Your task to perform on an android device: turn notification dots on Image 0: 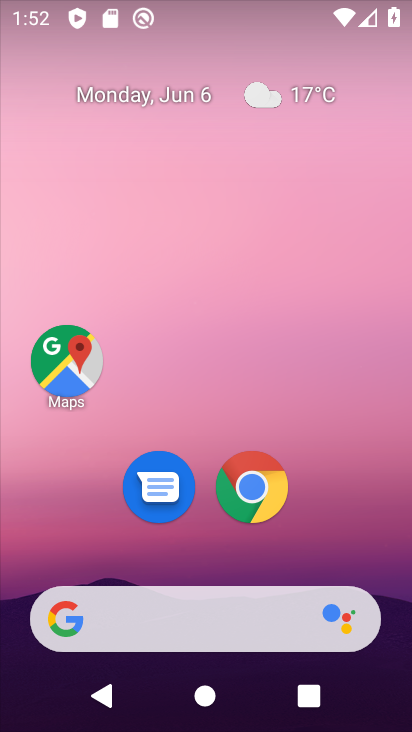
Step 0: drag from (342, 551) to (404, 133)
Your task to perform on an android device: turn notification dots on Image 1: 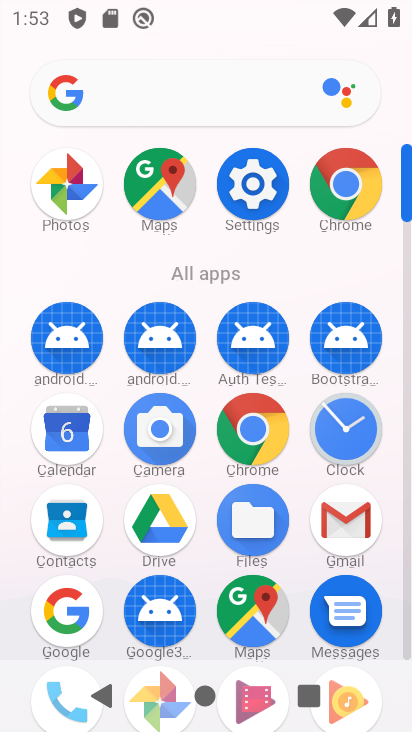
Step 1: click (246, 180)
Your task to perform on an android device: turn notification dots on Image 2: 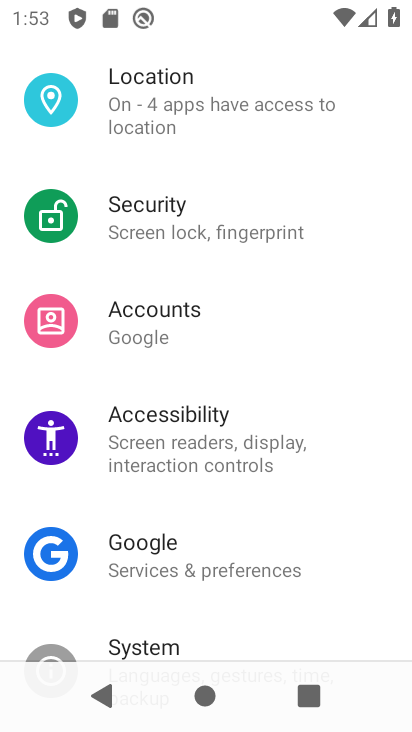
Step 2: drag from (243, 123) to (258, 646)
Your task to perform on an android device: turn notification dots on Image 3: 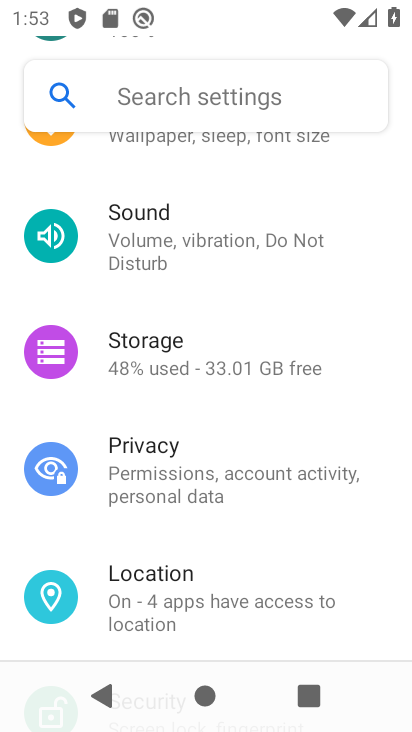
Step 3: drag from (231, 159) to (201, 559)
Your task to perform on an android device: turn notification dots on Image 4: 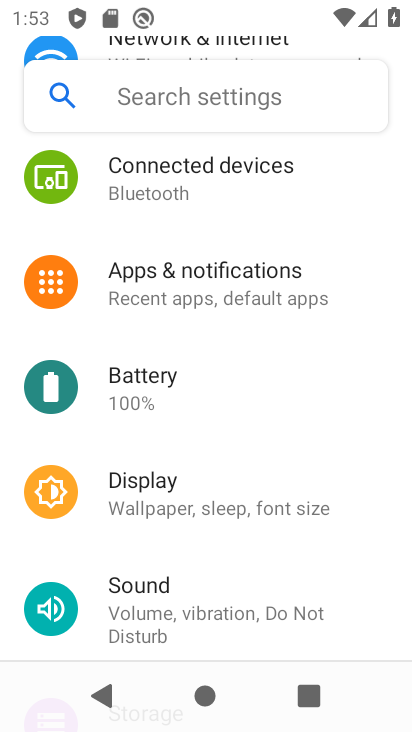
Step 4: click (160, 275)
Your task to perform on an android device: turn notification dots on Image 5: 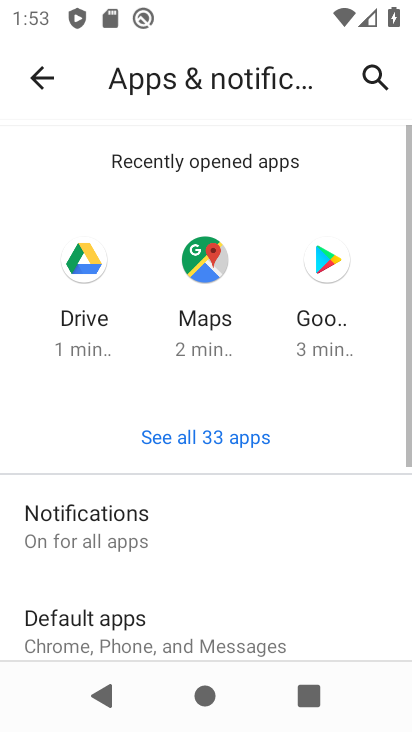
Step 5: click (154, 541)
Your task to perform on an android device: turn notification dots on Image 6: 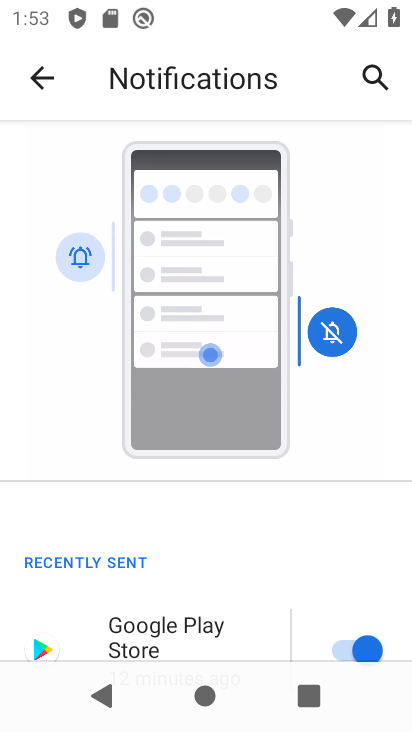
Step 6: drag from (294, 554) to (307, 181)
Your task to perform on an android device: turn notification dots on Image 7: 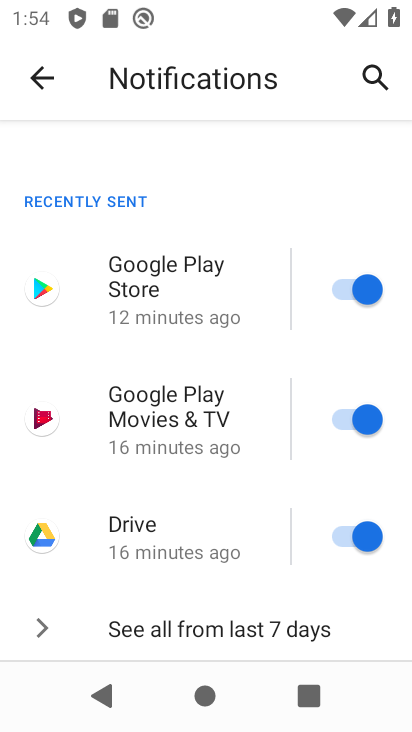
Step 7: drag from (187, 485) to (212, 4)
Your task to perform on an android device: turn notification dots on Image 8: 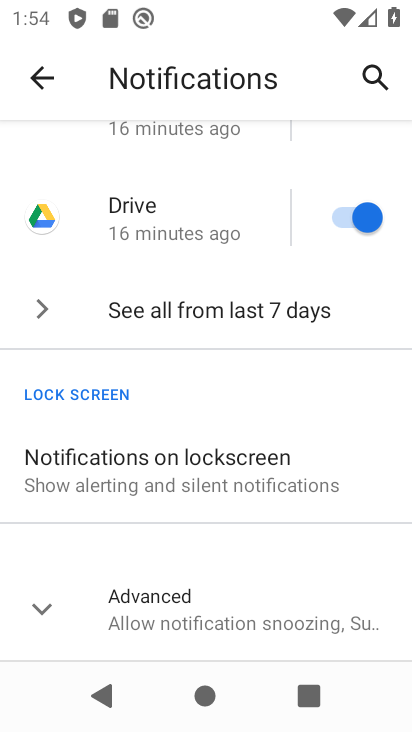
Step 8: click (191, 616)
Your task to perform on an android device: turn notification dots on Image 9: 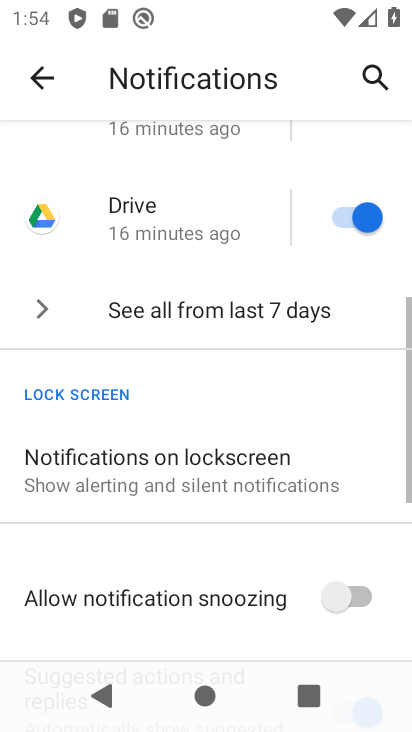
Step 9: task complete